Your task to perform on an android device: Go to Android settings Image 0: 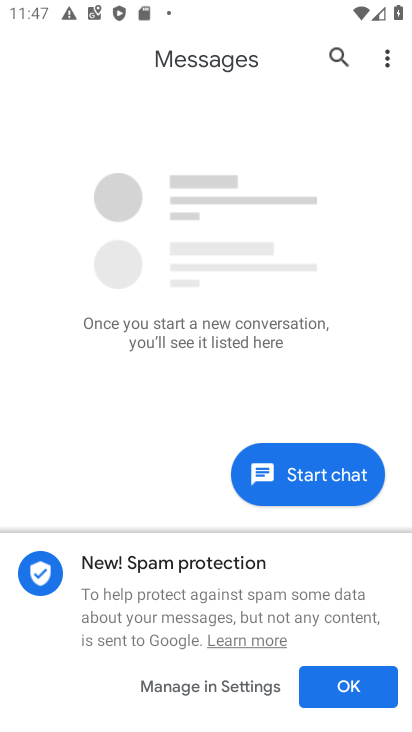
Step 0: press home button
Your task to perform on an android device: Go to Android settings Image 1: 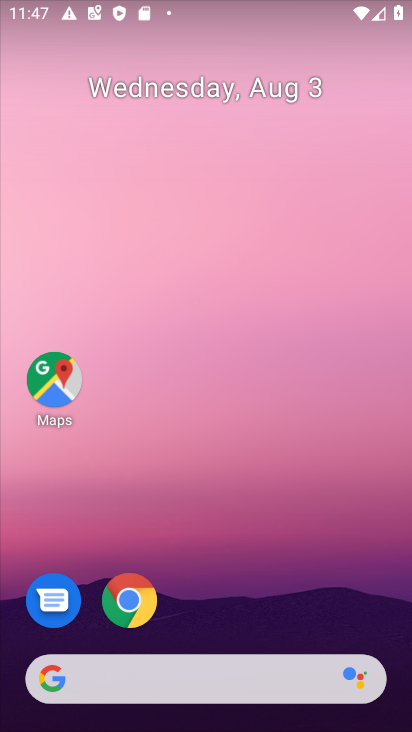
Step 1: drag from (210, 664) to (286, 157)
Your task to perform on an android device: Go to Android settings Image 2: 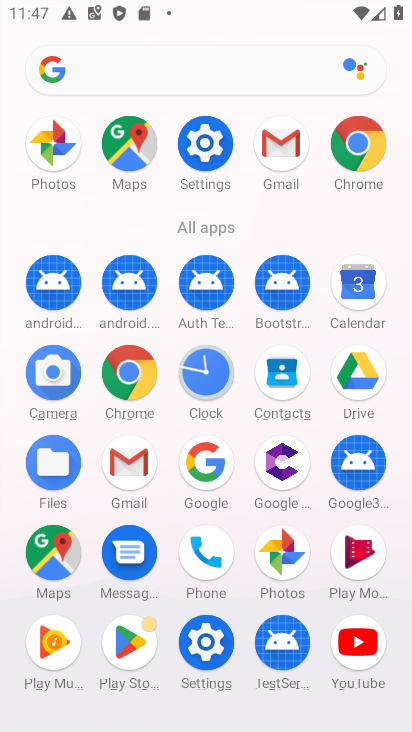
Step 2: click (211, 143)
Your task to perform on an android device: Go to Android settings Image 3: 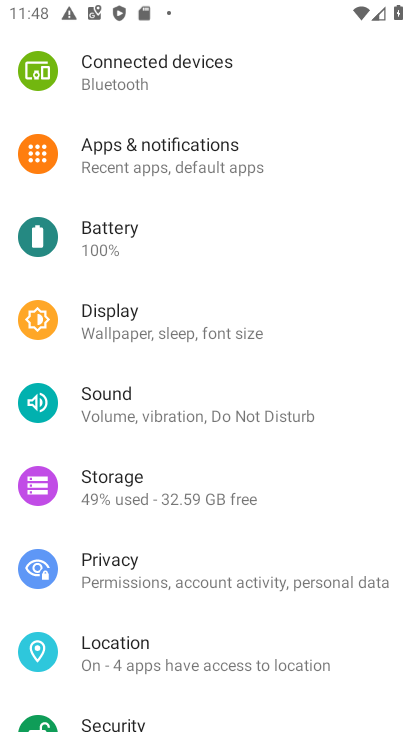
Step 3: task complete